Your task to perform on an android device: turn pop-ups on in chrome Image 0: 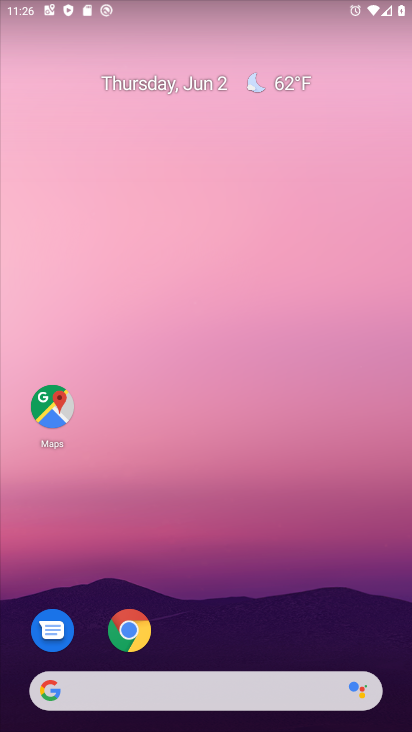
Step 0: press home button
Your task to perform on an android device: turn pop-ups on in chrome Image 1: 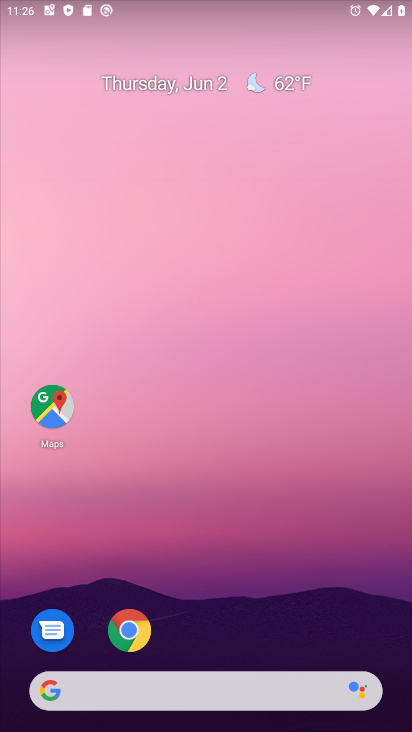
Step 1: click (127, 630)
Your task to perform on an android device: turn pop-ups on in chrome Image 2: 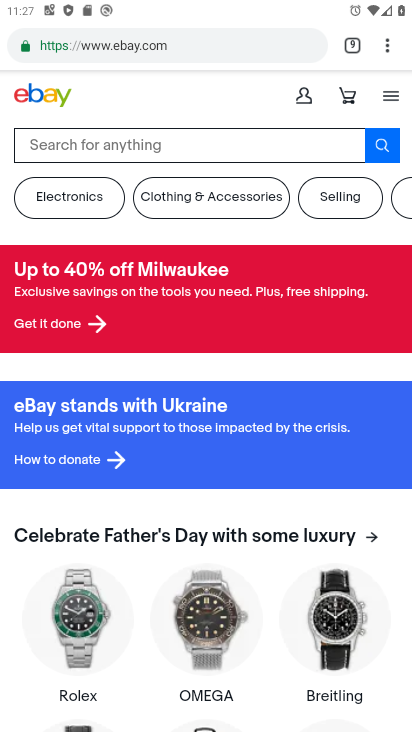
Step 2: drag from (387, 50) to (231, 556)
Your task to perform on an android device: turn pop-ups on in chrome Image 3: 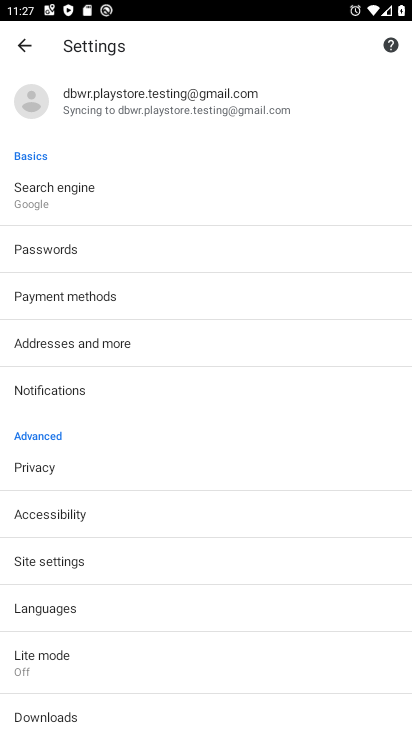
Step 3: click (51, 564)
Your task to perform on an android device: turn pop-ups on in chrome Image 4: 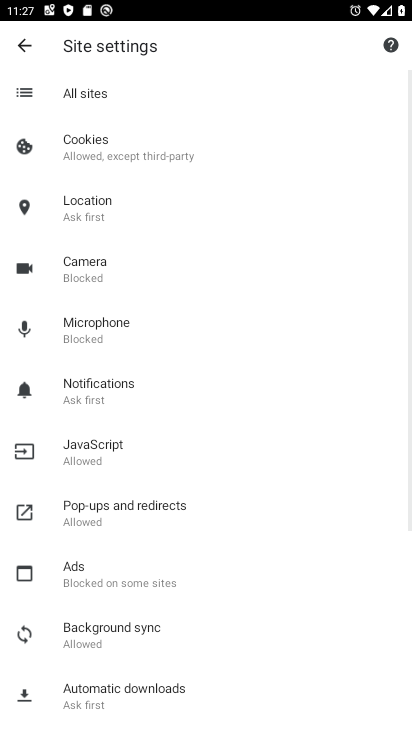
Step 4: click (122, 509)
Your task to perform on an android device: turn pop-ups on in chrome Image 5: 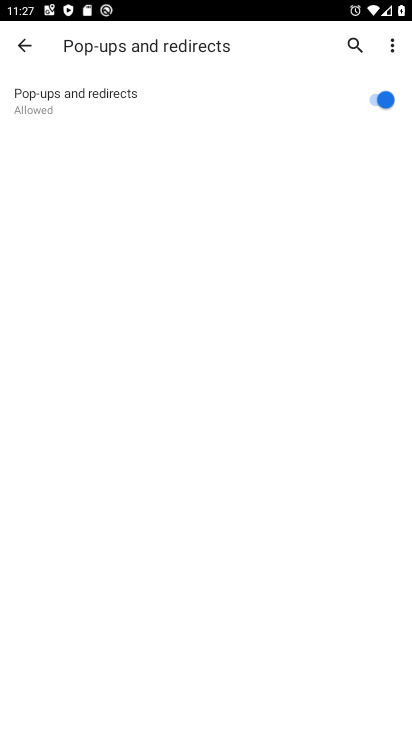
Step 5: task complete